Your task to perform on an android device: Search for sushi restaurants on Maps Image 0: 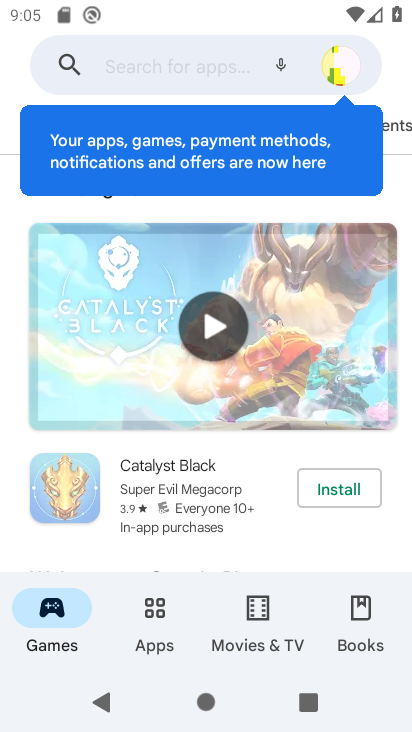
Step 0: press home button
Your task to perform on an android device: Search for sushi restaurants on Maps Image 1: 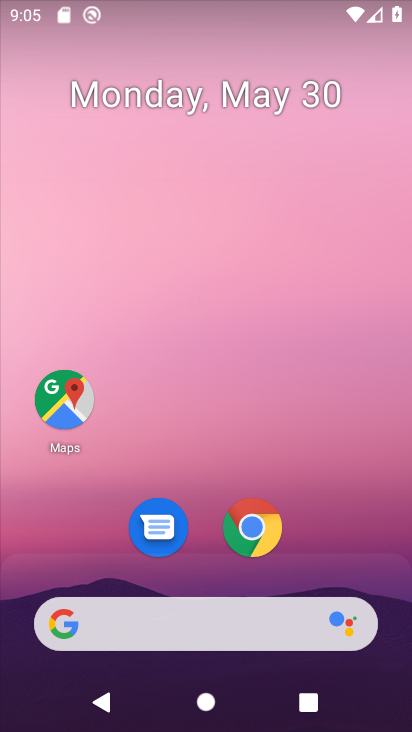
Step 1: click (66, 430)
Your task to perform on an android device: Search for sushi restaurants on Maps Image 2: 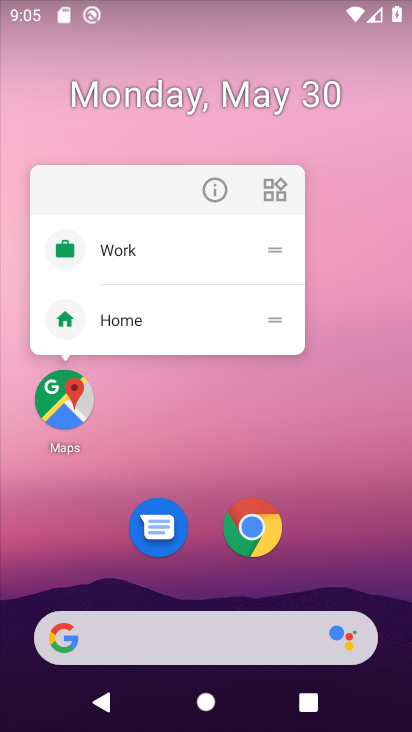
Step 2: click (64, 404)
Your task to perform on an android device: Search for sushi restaurants on Maps Image 3: 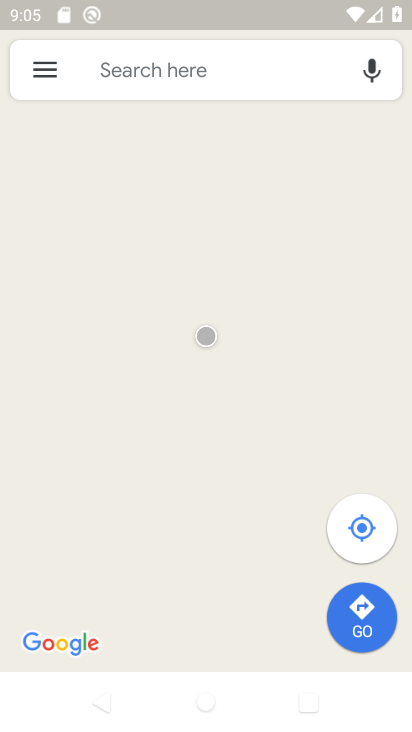
Step 3: click (180, 73)
Your task to perform on an android device: Search for sushi restaurants on Maps Image 4: 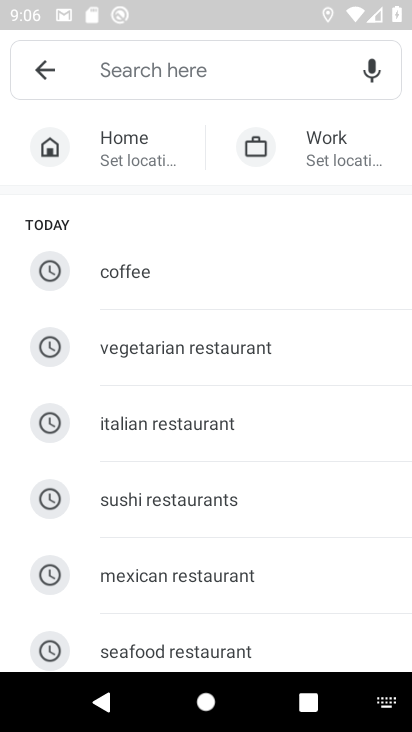
Step 4: type "sushi restaurants"
Your task to perform on an android device: Search for sushi restaurants on Maps Image 5: 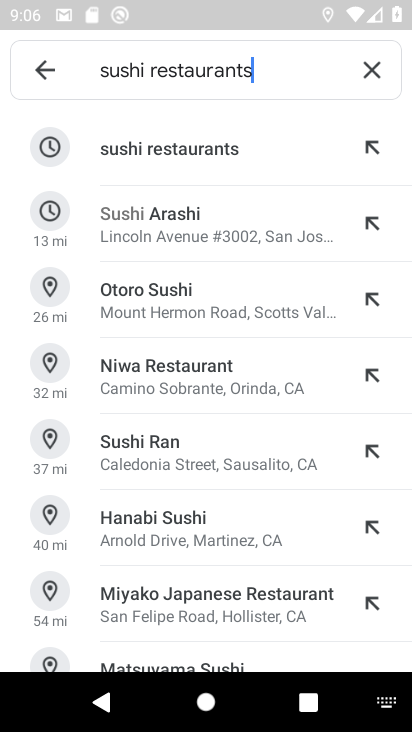
Step 5: click (160, 162)
Your task to perform on an android device: Search for sushi restaurants on Maps Image 6: 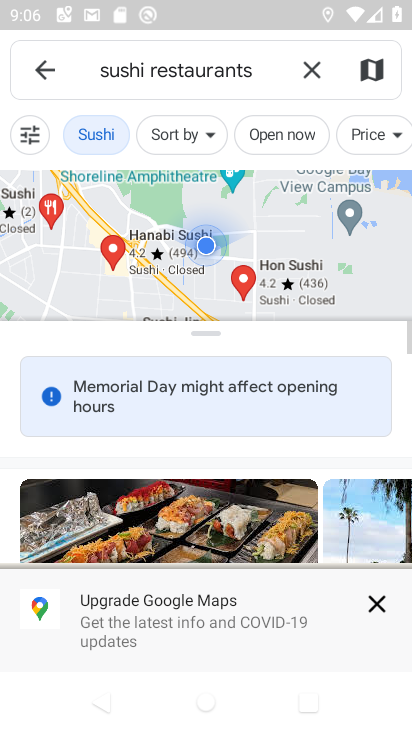
Step 6: click (374, 612)
Your task to perform on an android device: Search for sushi restaurants on Maps Image 7: 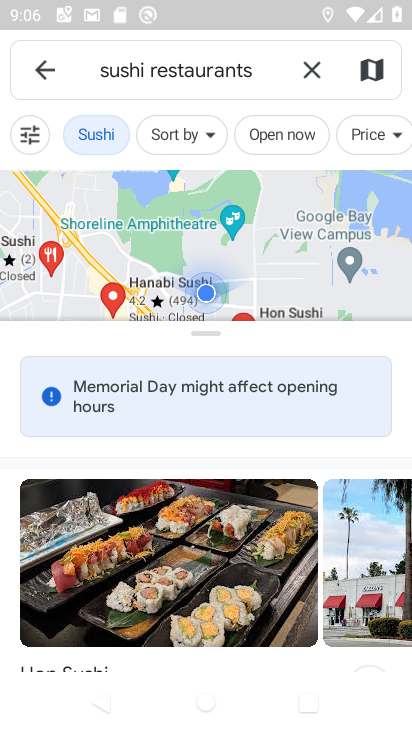
Step 7: task complete